Your task to perform on an android device: move a message to another label in the gmail app Image 0: 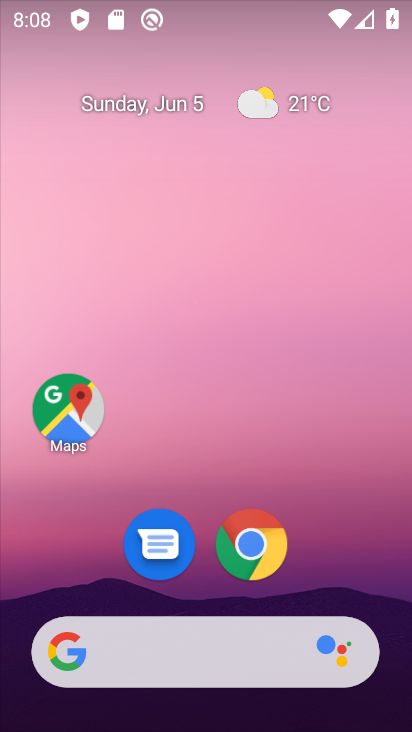
Step 0: drag from (380, 662) to (367, 118)
Your task to perform on an android device: move a message to another label in the gmail app Image 1: 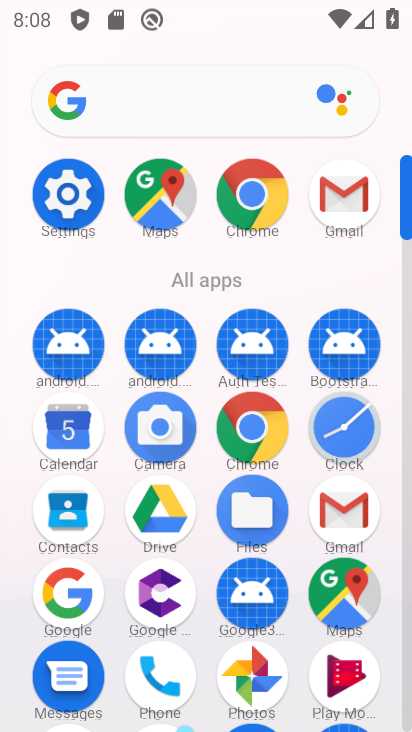
Step 1: click (359, 501)
Your task to perform on an android device: move a message to another label in the gmail app Image 2: 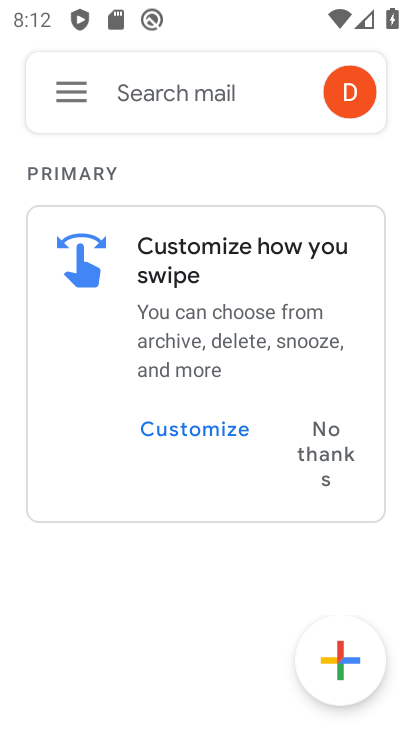
Step 2: click (79, 93)
Your task to perform on an android device: move a message to another label in the gmail app Image 3: 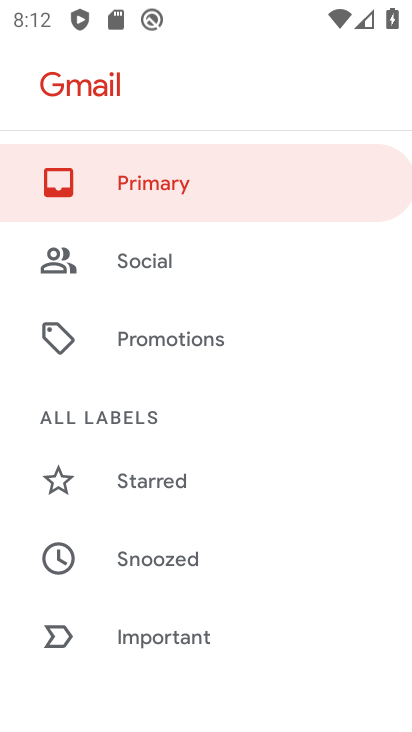
Step 3: drag from (294, 497) to (287, 232)
Your task to perform on an android device: move a message to another label in the gmail app Image 4: 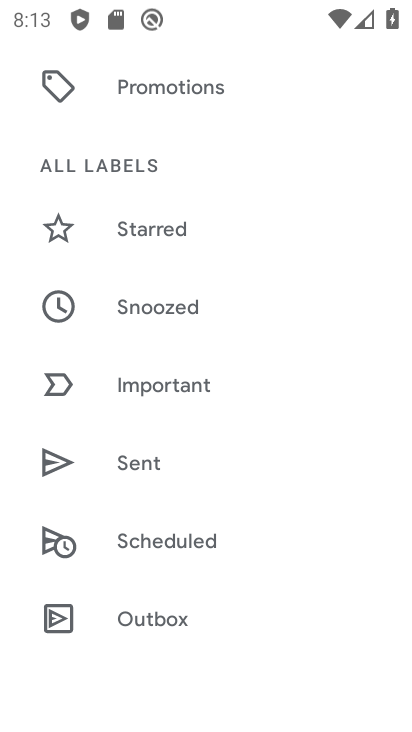
Step 4: drag from (267, 178) to (283, 586)
Your task to perform on an android device: move a message to another label in the gmail app Image 5: 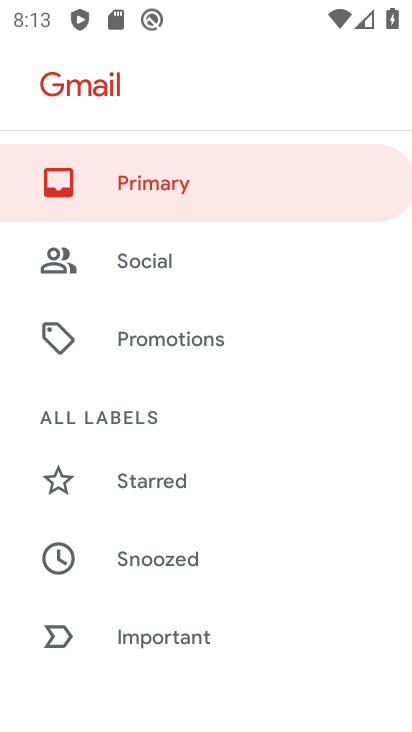
Step 5: click (211, 179)
Your task to perform on an android device: move a message to another label in the gmail app Image 6: 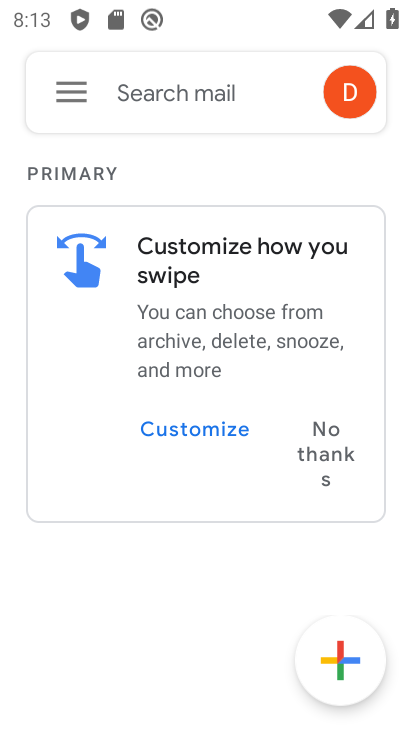
Step 6: task complete